Your task to perform on an android device: turn on wifi Image 0: 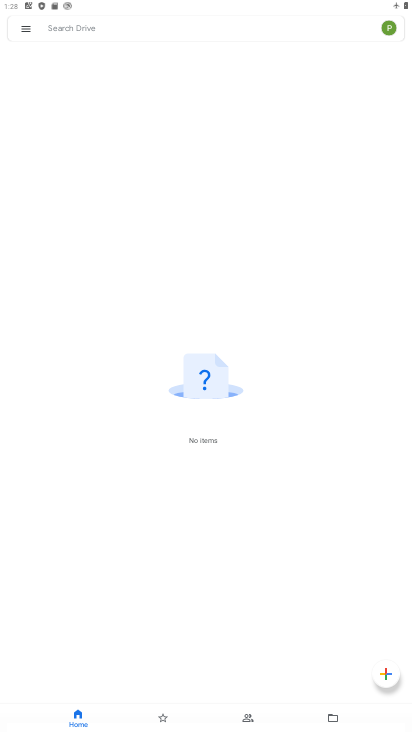
Step 0: press home button
Your task to perform on an android device: turn on wifi Image 1: 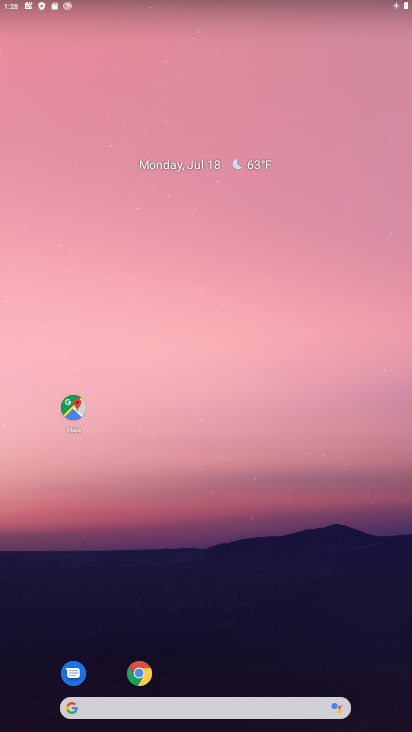
Step 1: drag from (232, 681) to (207, 97)
Your task to perform on an android device: turn on wifi Image 2: 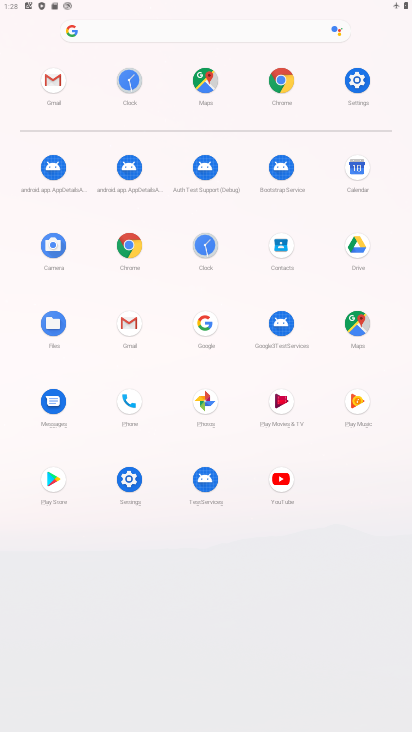
Step 2: click (350, 86)
Your task to perform on an android device: turn on wifi Image 3: 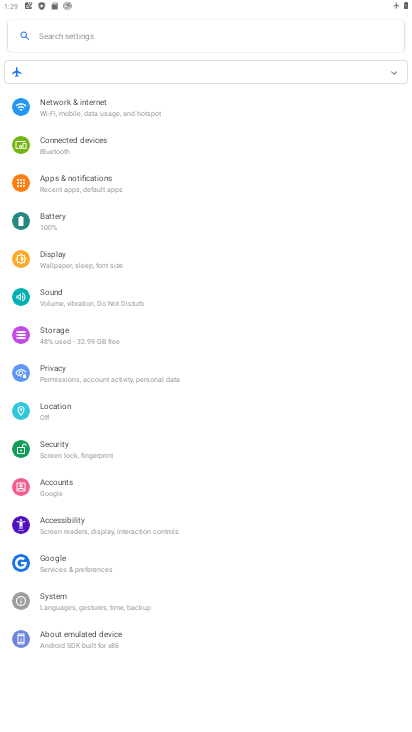
Step 3: click (105, 94)
Your task to perform on an android device: turn on wifi Image 4: 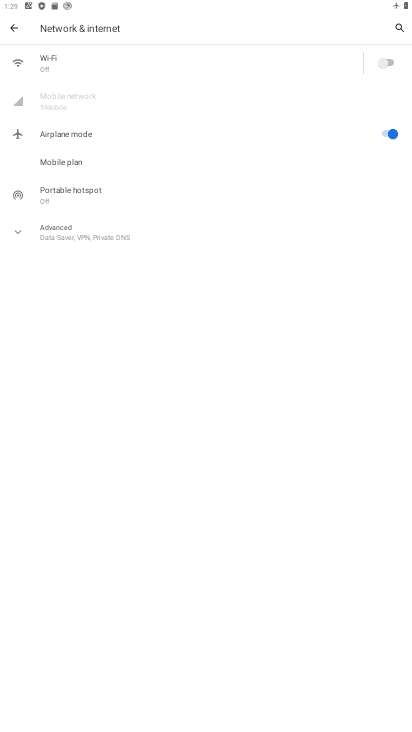
Step 4: click (91, 56)
Your task to perform on an android device: turn on wifi Image 5: 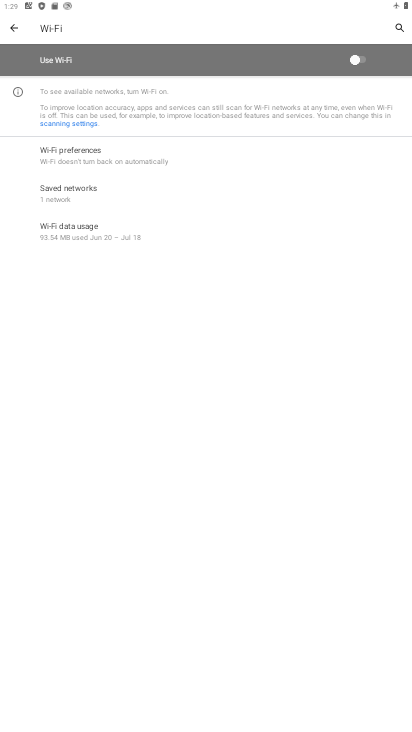
Step 5: click (362, 52)
Your task to perform on an android device: turn on wifi Image 6: 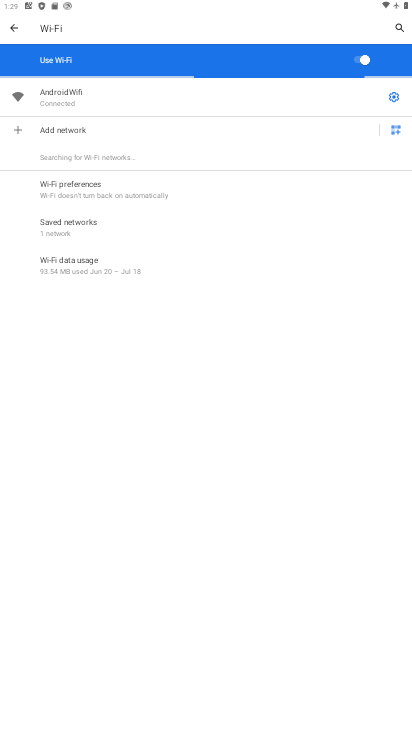
Step 6: task complete